Your task to perform on an android device: Open location settings Image 0: 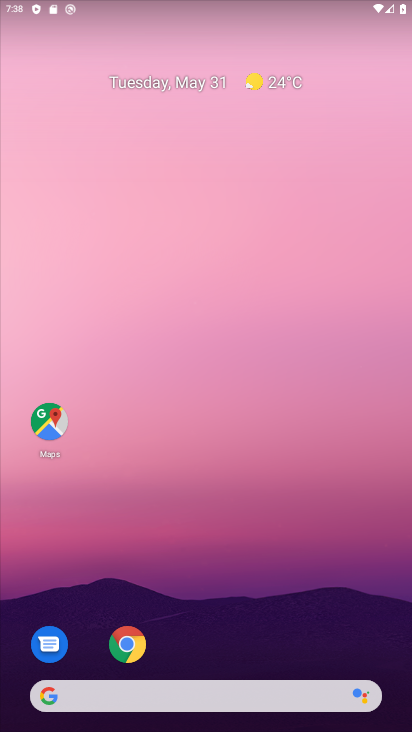
Step 0: drag from (219, 578) to (216, 354)
Your task to perform on an android device: Open location settings Image 1: 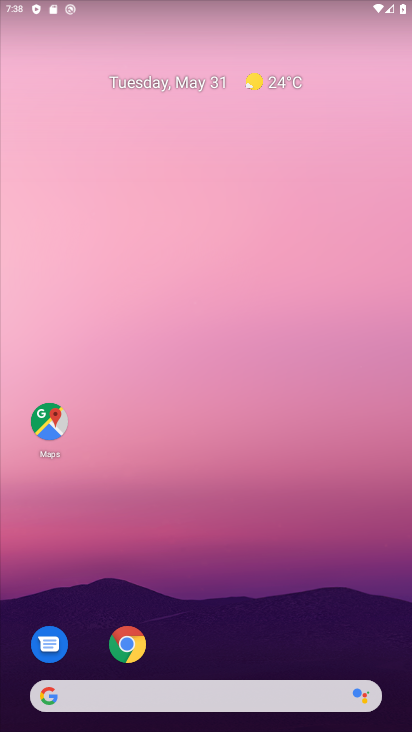
Step 1: drag from (275, 612) to (272, 205)
Your task to perform on an android device: Open location settings Image 2: 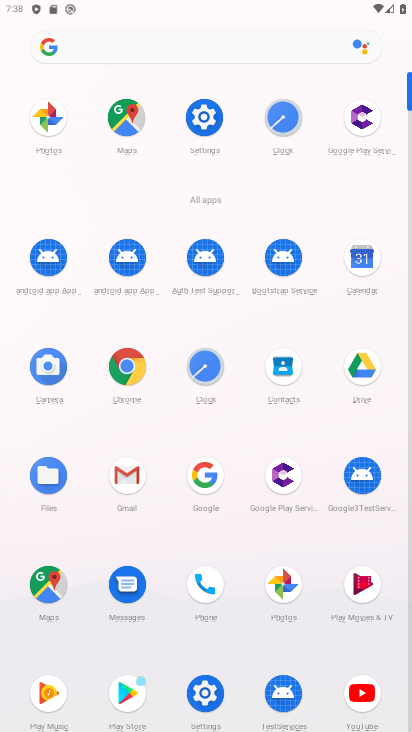
Step 2: click (202, 119)
Your task to perform on an android device: Open location settings Image 3: 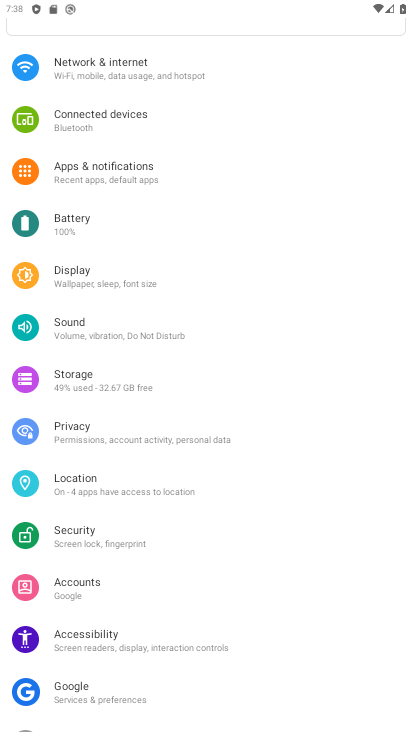
Step 3: click (108, 467)
Your task to perform on an android device: Open location settings Image 4: 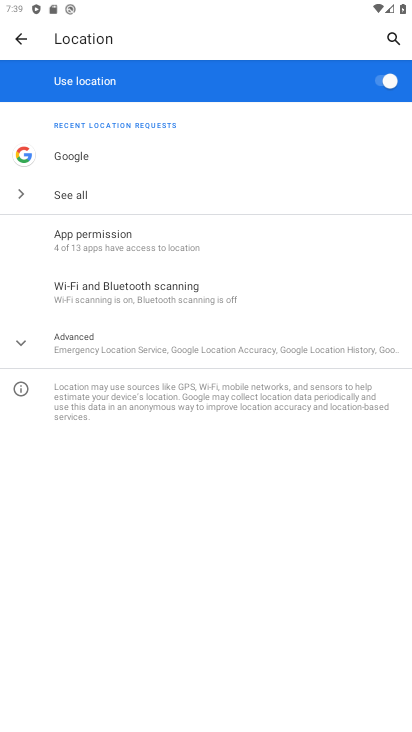
Step 4: task complete